Your task to perform on an android device: Go to internet settings Image 0: 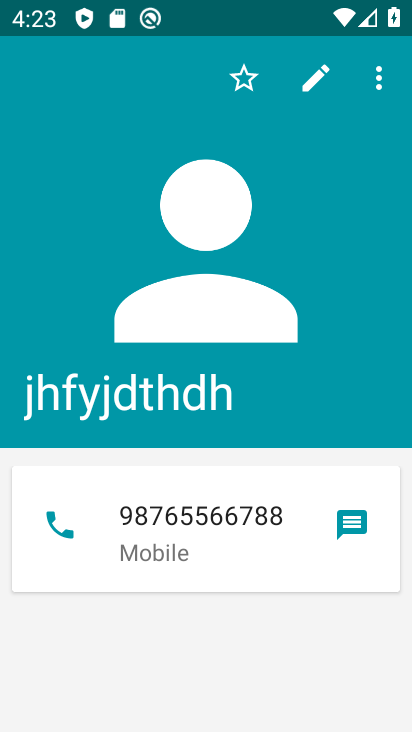
Step 0: press home button
Your task to perform on an android device: Go to internet settings Image 1: 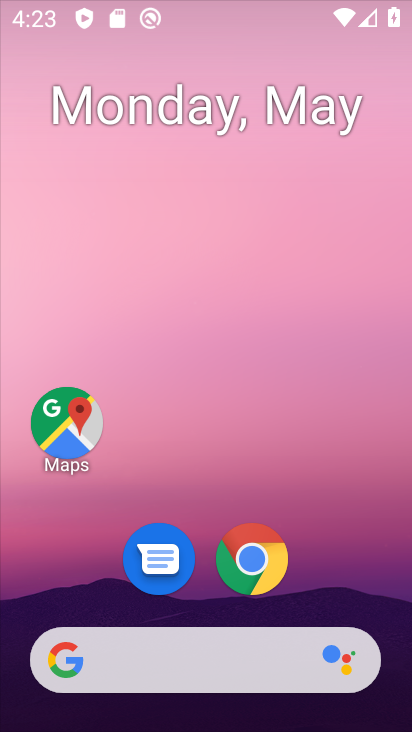
Step 1: drag from (126, 627) to (220, 3)
Your task to perform on an android device: Go to internet settings Image 2: 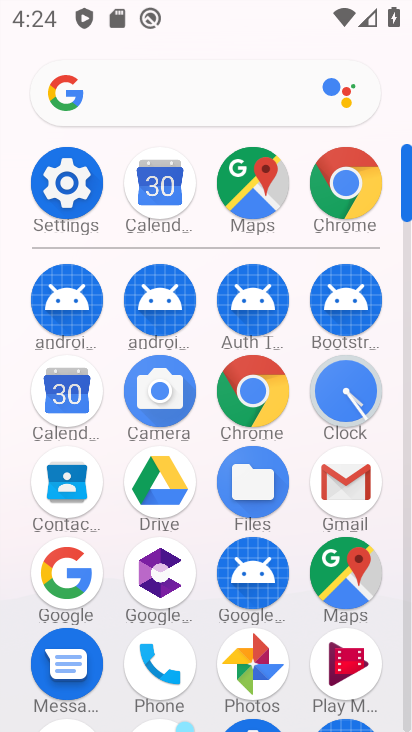
Step 2: click (91, 179)
Your task to perform on an android device: Go to internet settings Image 3: 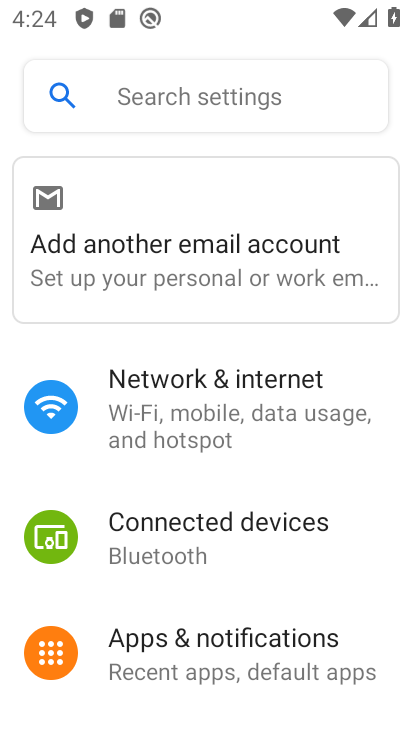
Step 3: click (148, 411)
Your task to perform on an android device: Go to internet settings Image 4: 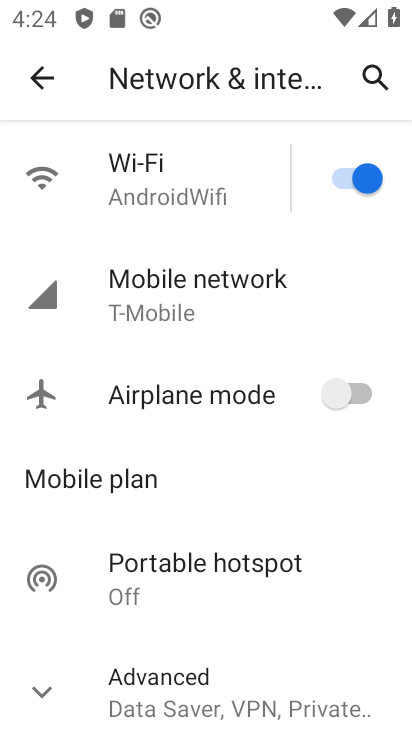
Step 4: click (197, 188)
Your task to perform on an android device: Go to internet settings Image 5: 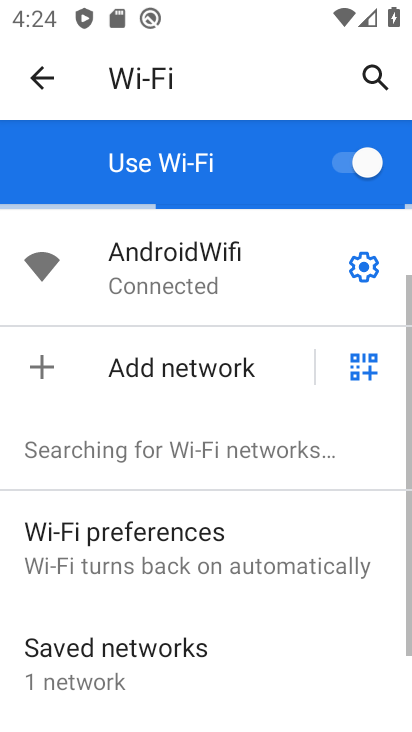
Step 5: task complete